Your task to perform on an android device: stop showing notifications on the lock screen Image 0: 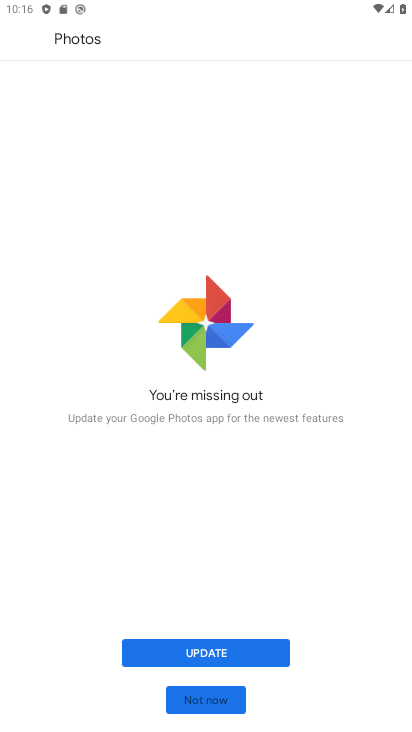
Step 0: press home button
Your task to perform on an android device: stop showing notifications on the lock screen Image 1: 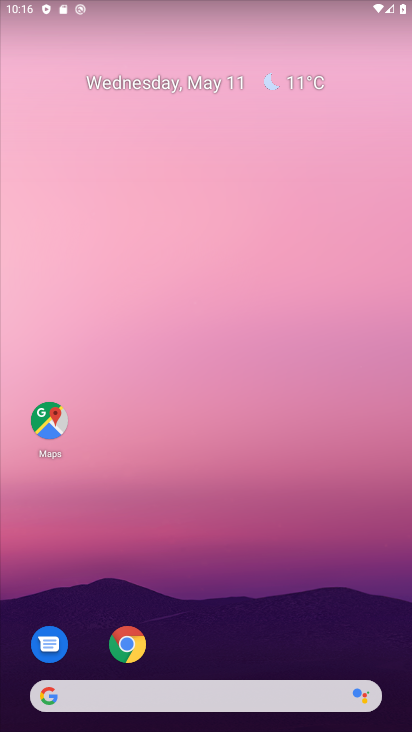
Step 1: drag from (321, 272) to (245, 0)
Your task to perform on an android device: stop showing notifications on the lock screen Image 2: 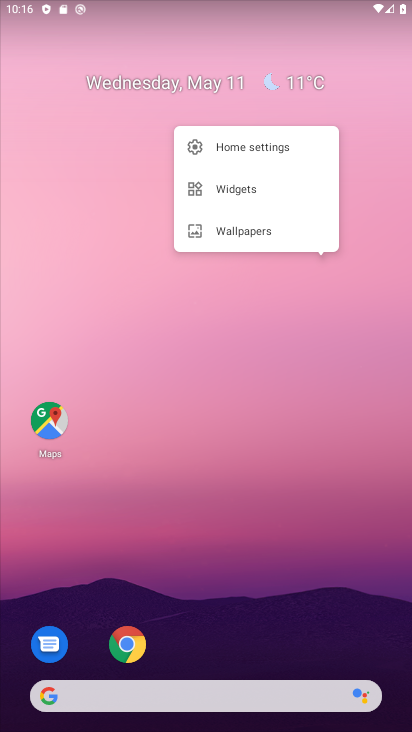
Step 2: drag from (296, 640) to (244, 14)
Your task to perform on an android device: stop showing notifications on the lock screen Image 3: 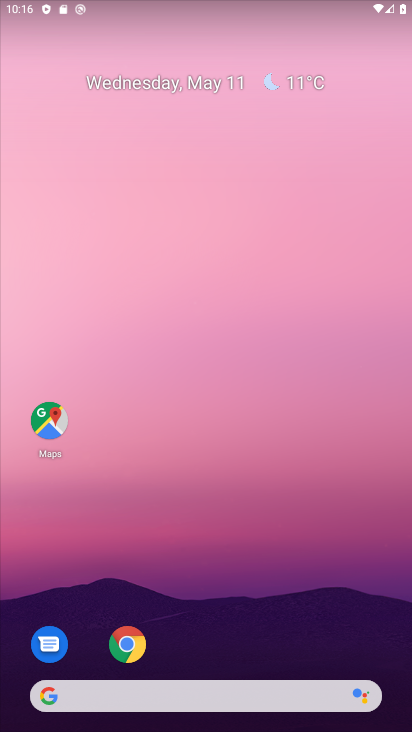
Step 3: drag from (250, 575) to (260, 3)
Your task to perform on an android device: stop showing notifications on the lock screen Image 4: 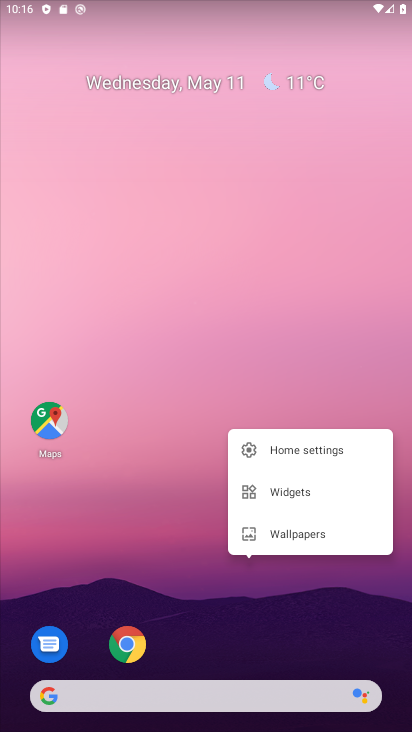
Step 4: drag from (319, 634) to (309, 40)
Your task to perform on an android device: stop showing notifications on the lock screen Image 5: 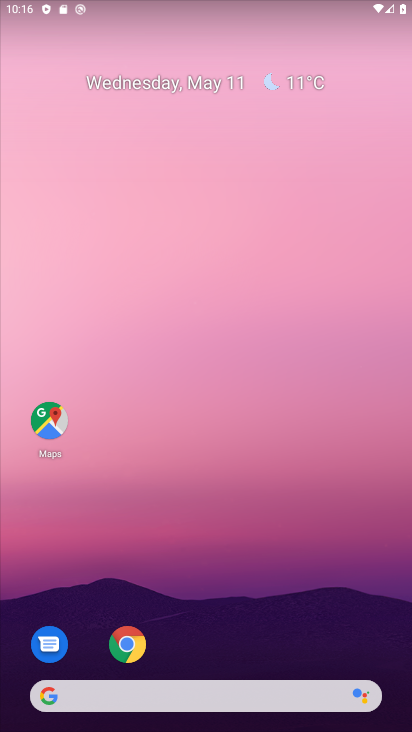
Step 5: drag from (331, 610) to (329, 0)
Your task to perform on an android device: stop showing notifications on the lock screen Image 6: 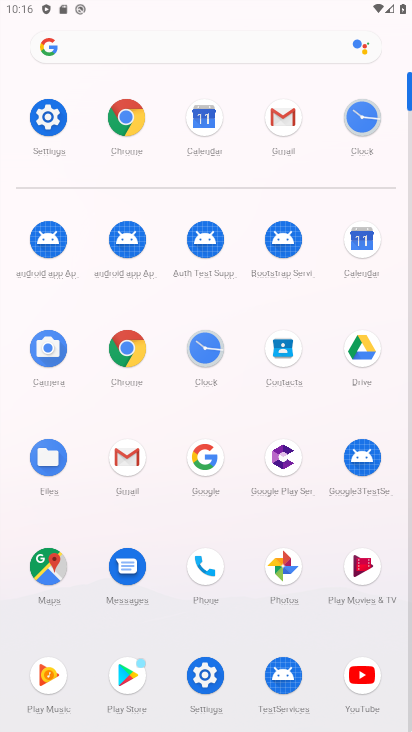
Step 6: click (55, 128)
Your task to perform on an android device: stop showing notifications on the lock screen Image 7: 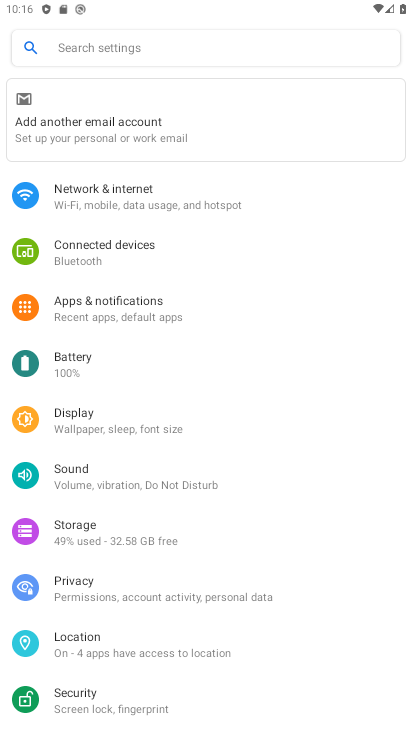
Step 7: click (116, 295)
Your task to perform on an android device: stop showing notifications on the lock screen Image 8: 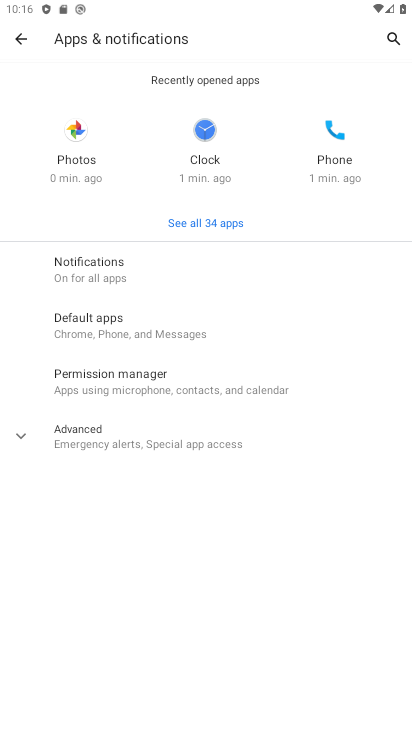
Step 8: click (68, 273)
Your task to perform on an android device: stop showing notifications on the lock screen Image 9: 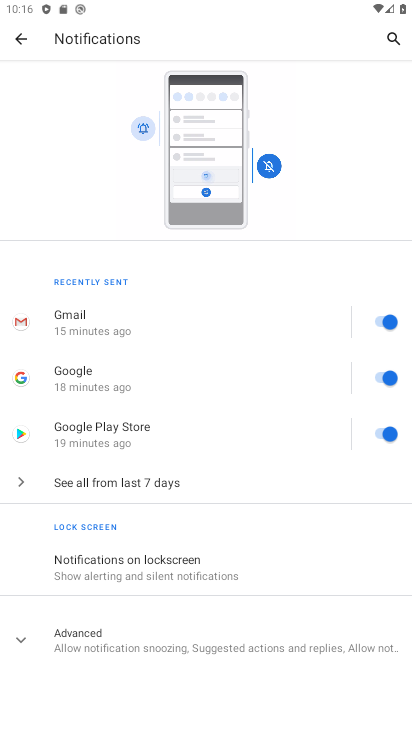
Step 9: click (87, 561)
Your task to perform on an android device: stop showing notifications on the lock screen Image 10: 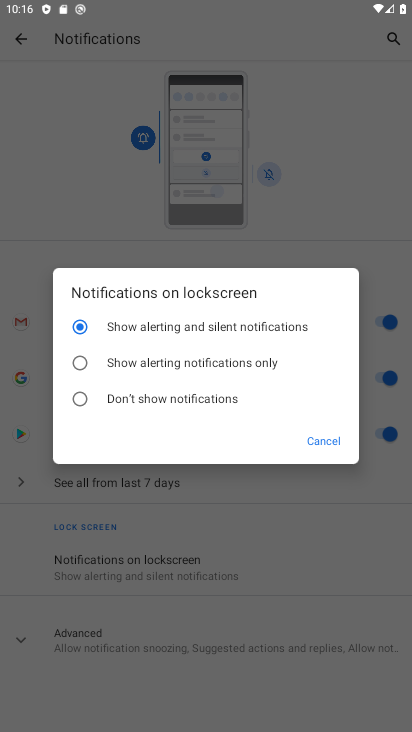
Step 10: click (86, 399)
Your task to perform on an android device: stop showing notifications on the lock screen Image 11: 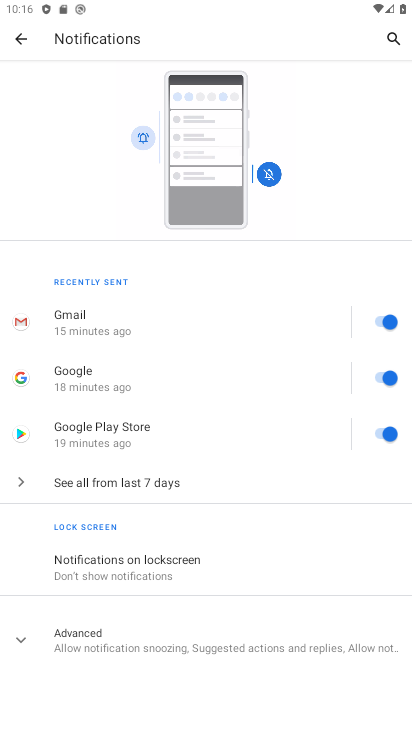
Step 11: task complete